Your task to perform on an android device: visit the assistant section in the google photos Image 0: 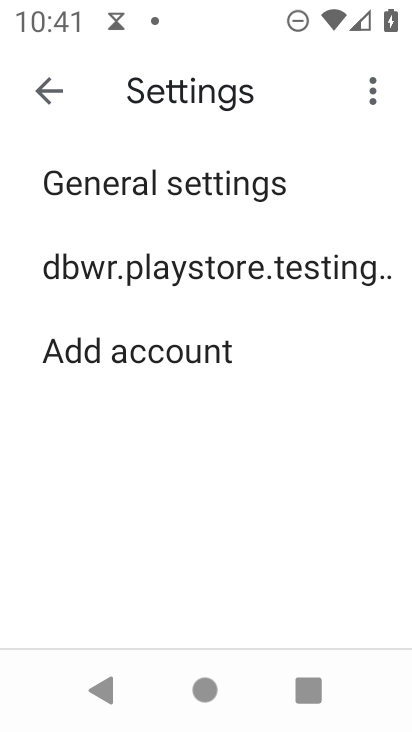
Step 0: press home button
Your task to perform on an android device: visit the assistant section in the google photos Image 1: 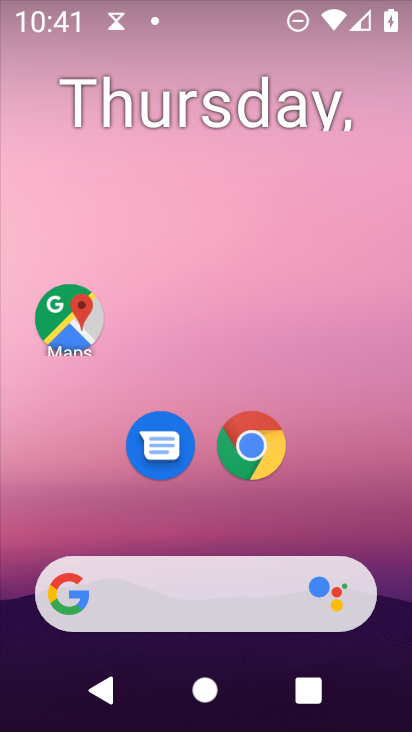
Step 1: drag from (234, 724) to (235, 11)
Your task to perform on an android device: visit the assistant section in the google photos Image 2: 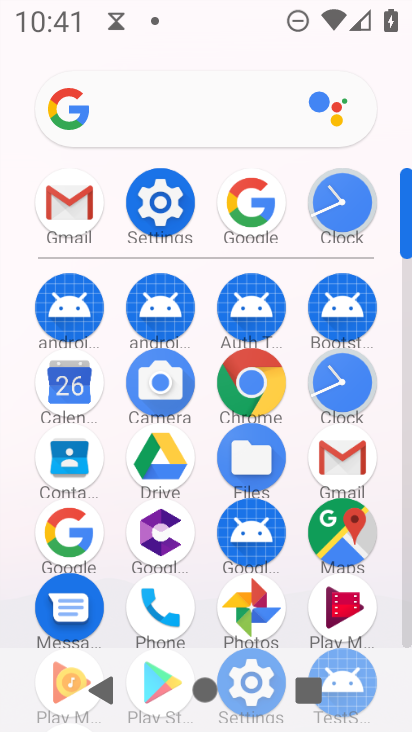
Step 2: click (247, 607)
Your task to perform on an android device: visit the assistant section in the google photos Image 3: 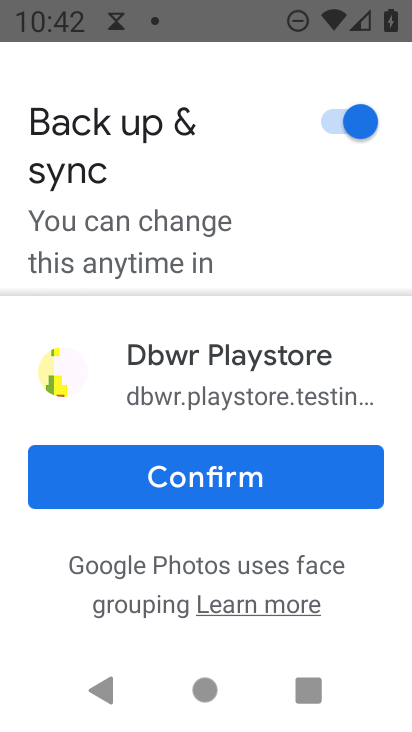
Step 3: click (202, 473)
Your task to perform on an android device: visit the assistant section in the google photos Image 4: 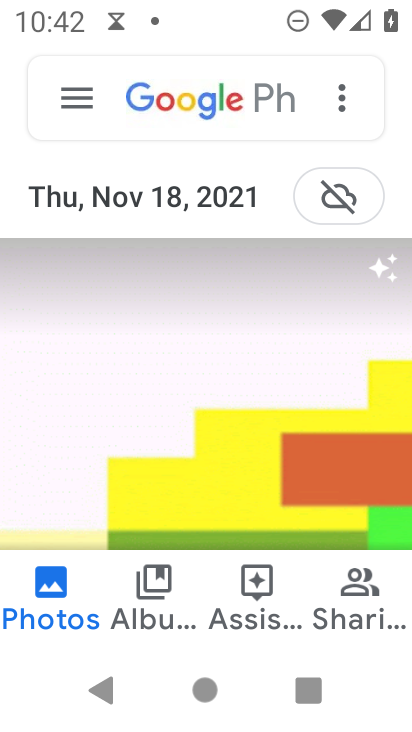
Step 4: click (267, 602)
Your task to perform on an android device: visit the assistant section in the google photos Image 5: 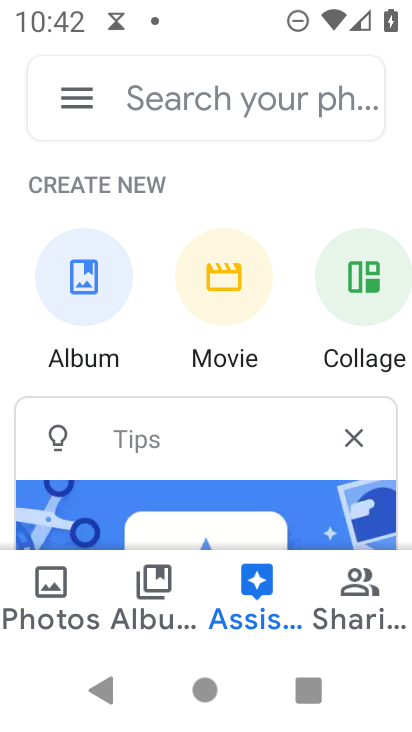
Step 5: task complete